Your task to perform on an android device: delete browsing data in the chrome app Image 0: 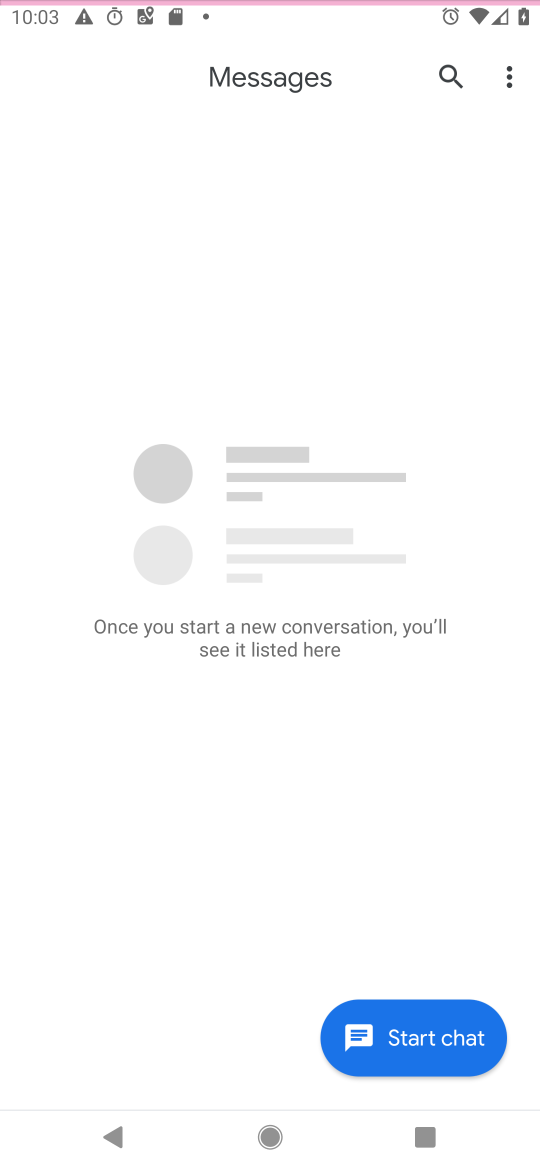
Step 0: click (315, 413)
Your task to perform on an android device: delete browsing data in the chrome app Image 1: 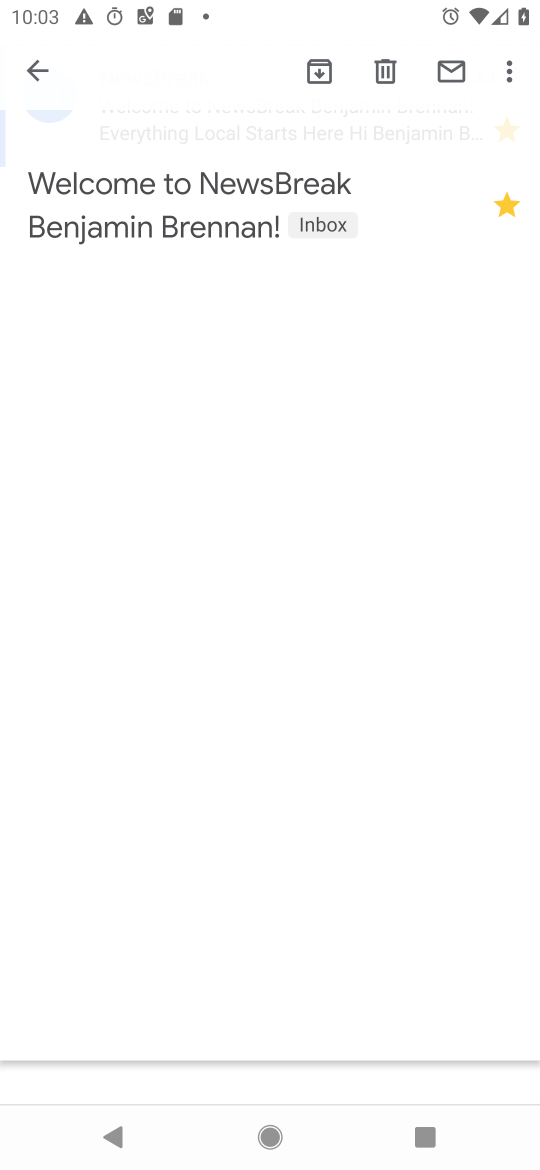
Step 1: drag from (333, 1010) to (350, 754)
Your task to perform on an android device: delete browsing data in the chrome app Image 2: 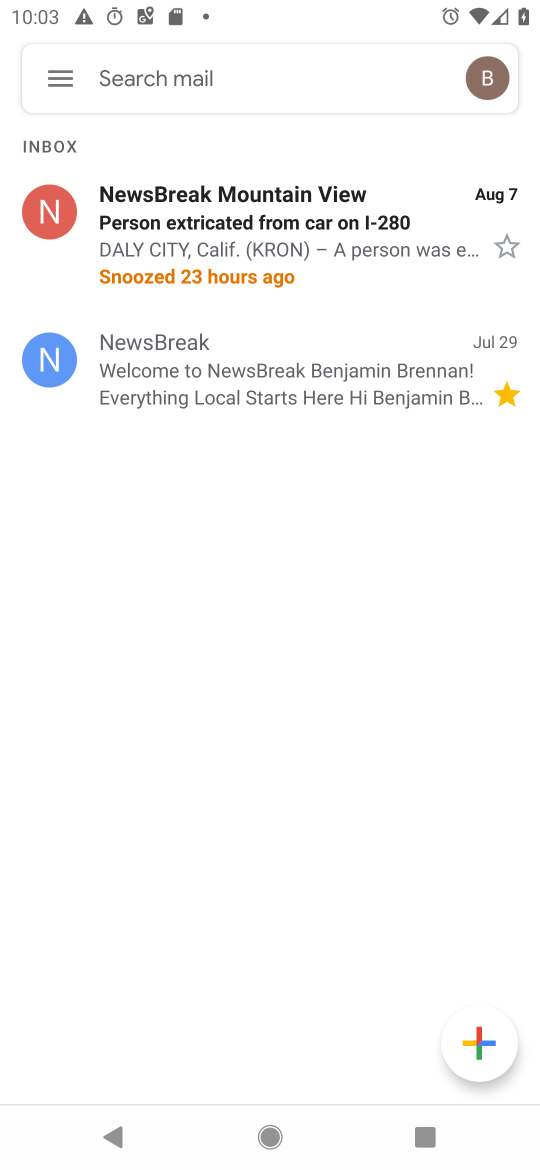
Step 2: press home button
Your task to perform on an android device: delete browsing data in the chrome app Image 3: 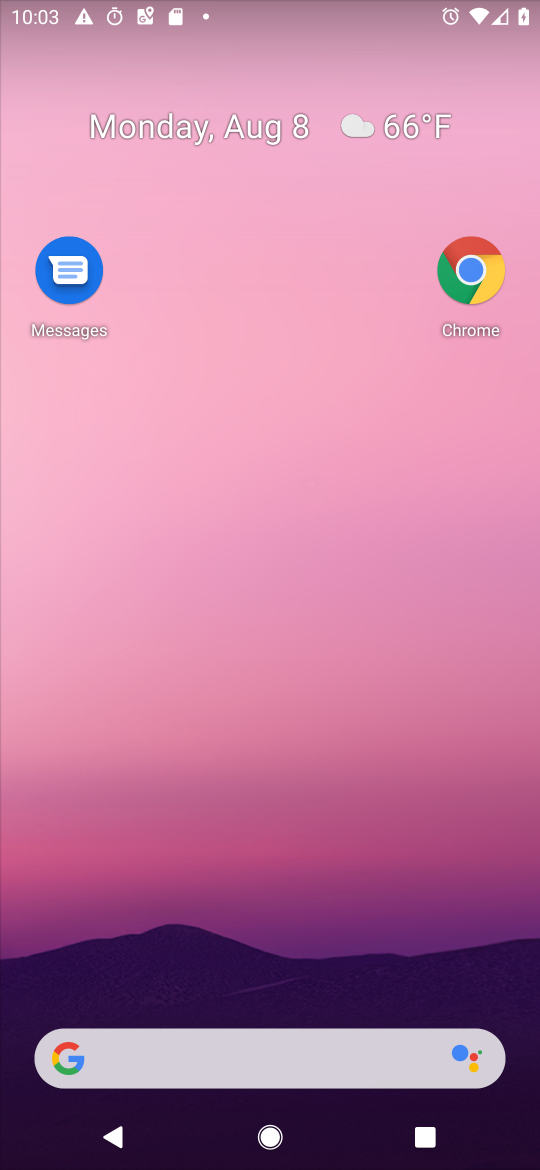
Step 3: drag from (248, 910) to (479, 63)
Your task to perform on an android device: delete browsing data in the chrome app Image 4: 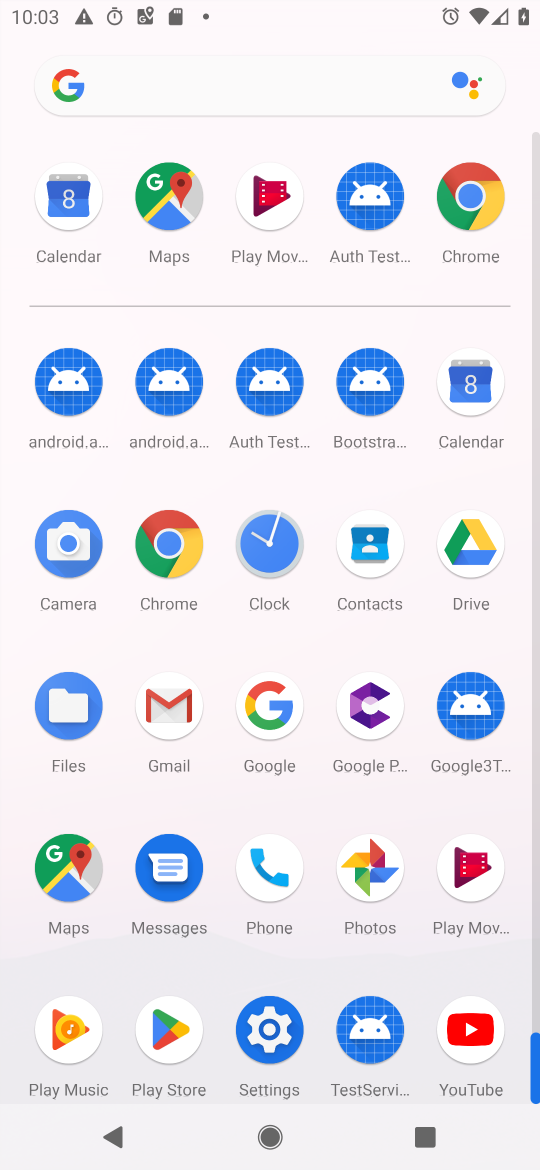
Step 4: click (171, 533)
Your task to perform on an android device: delete browsing data in the chrome app Image 5: 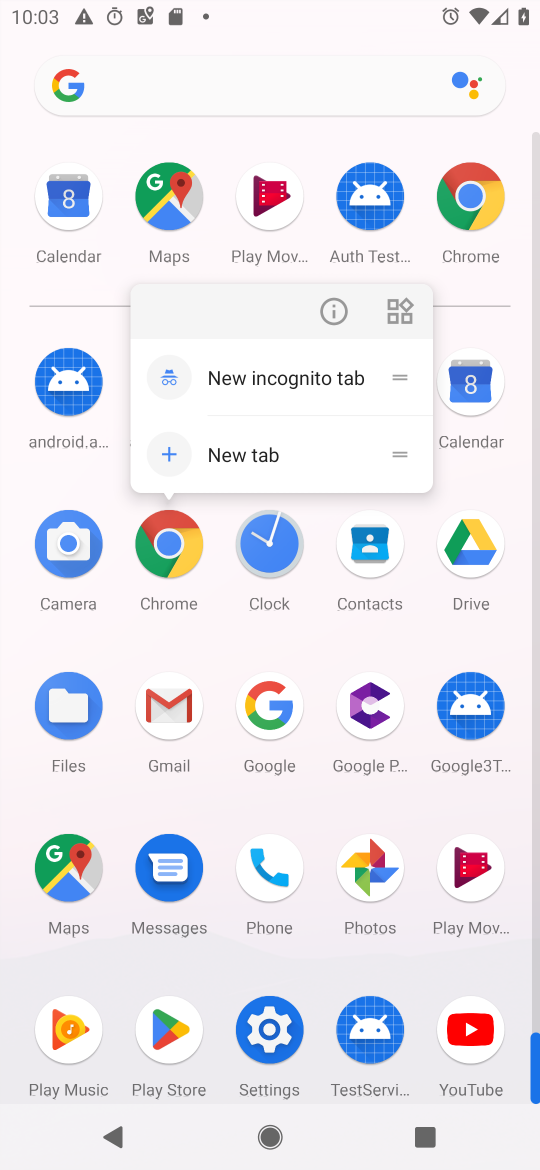
Step 5: click (335, 308)
Your task to perform on an android device: delete browsing data in the chrome app Image 6: 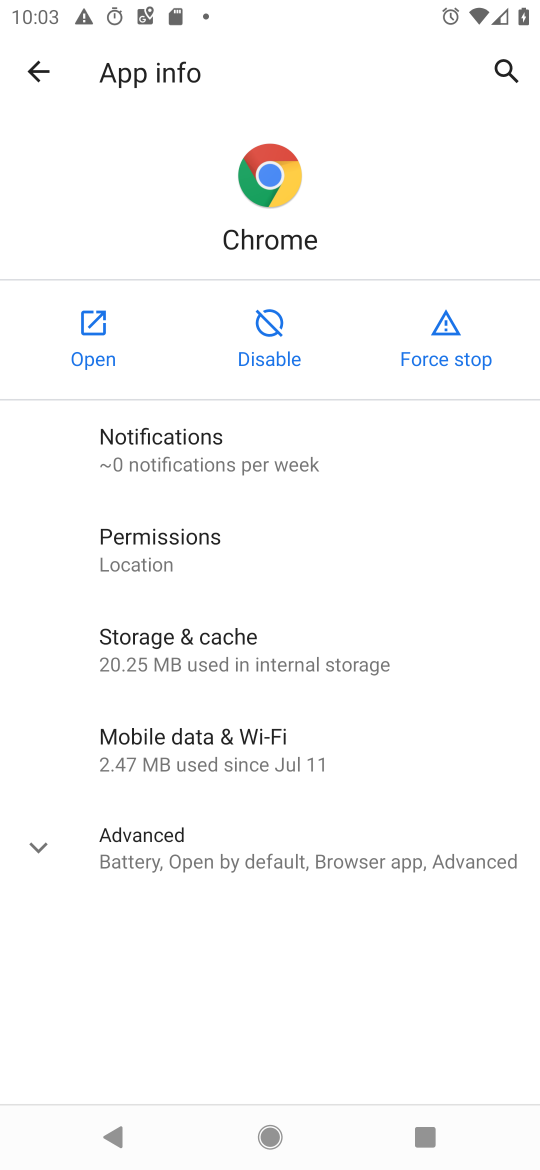
Step 6: click (101, 365)
Your task to perform on an android device: delete browsing data in the chrome app Image 7: 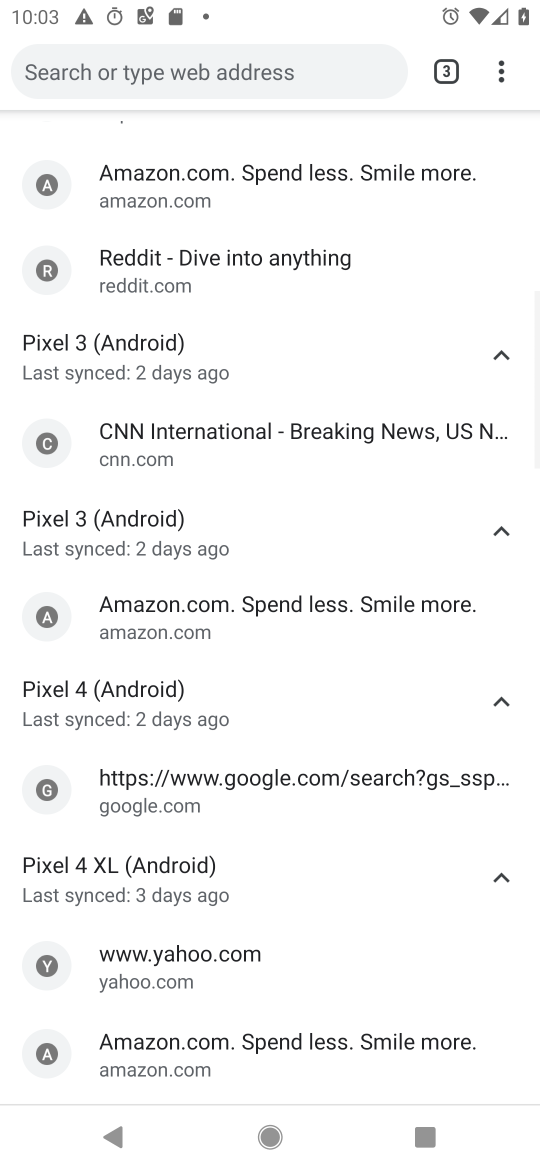
Step 7: drag from (500, 62) to (234, 412)
Your task to perform on an android device: delete browsing data in the chrome app Image 8: 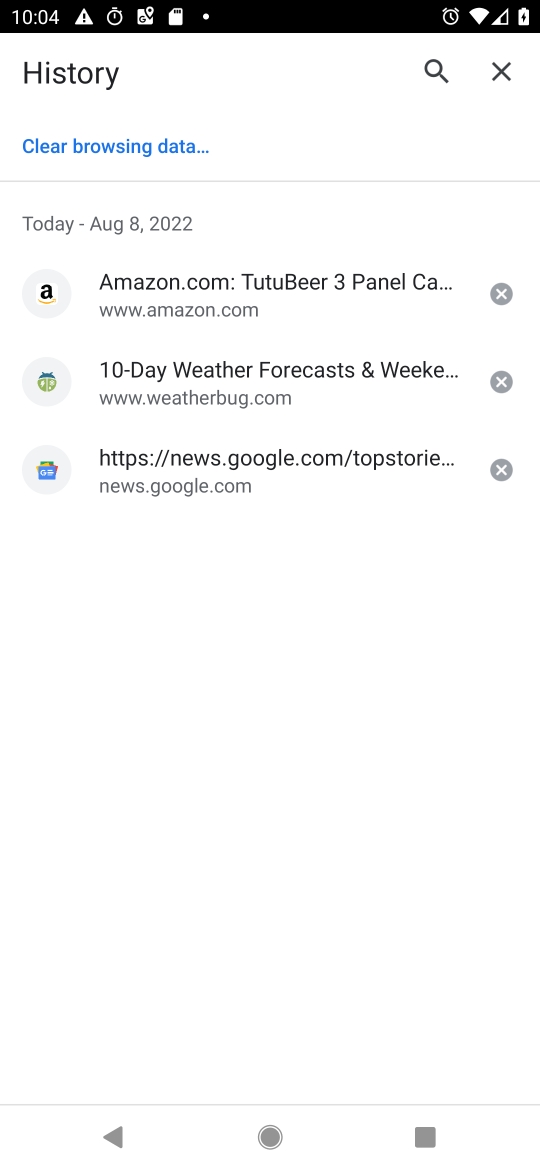
Step 8: click (73, 154)
Your task to perform on an android device: delete browsing data in the chrome app Image 9: 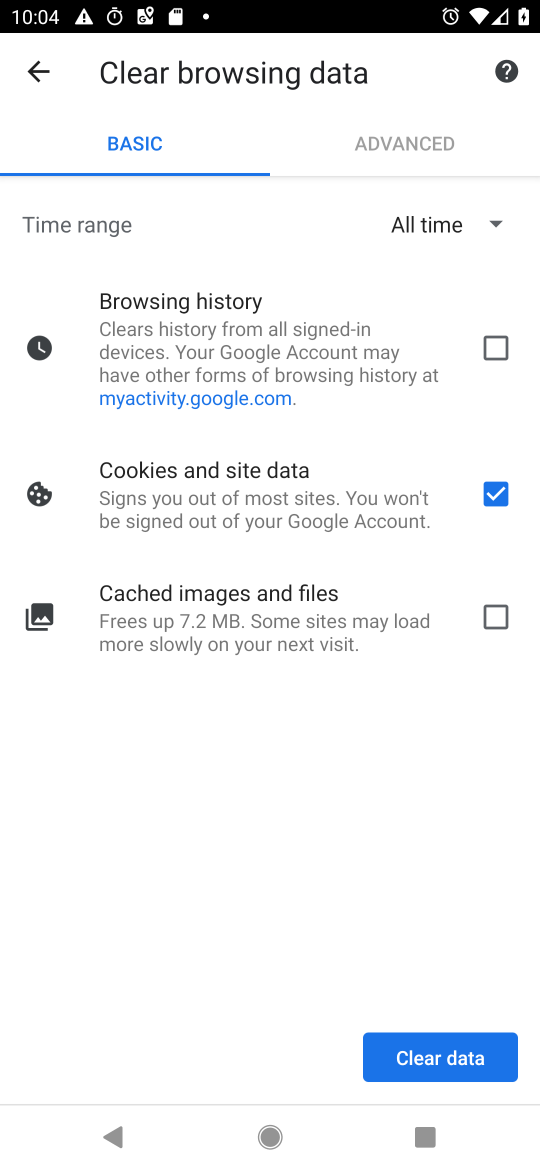
Step 9: click (442, 1053)
Your task to perform on an android device: delete browsing data in the chrome app Image 10: 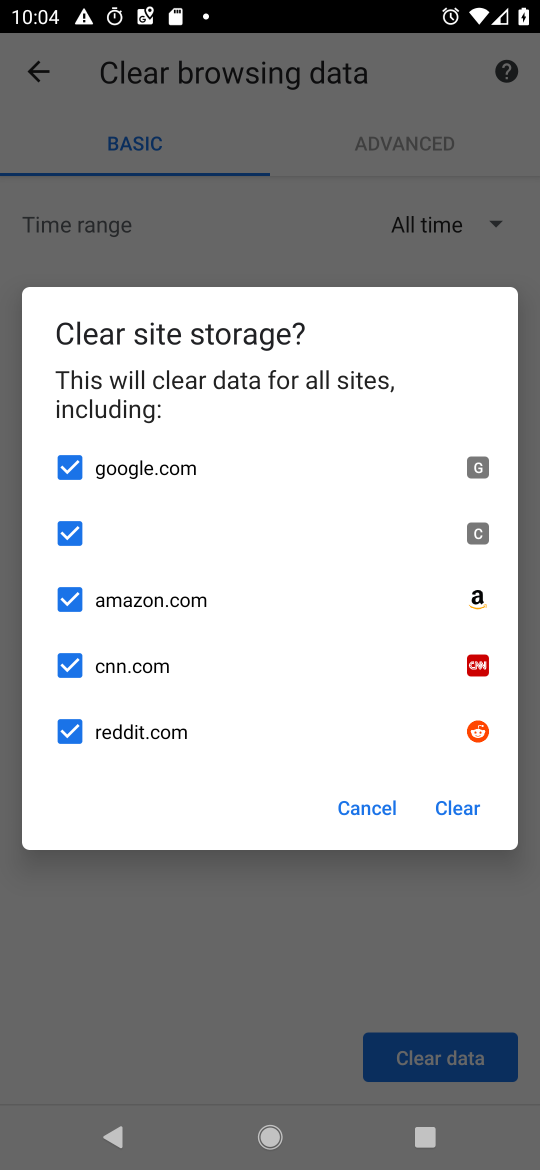
Step 10: click (426, 809)
Your task to perform on an android device: delete browsing data in the chrome app Image 11: 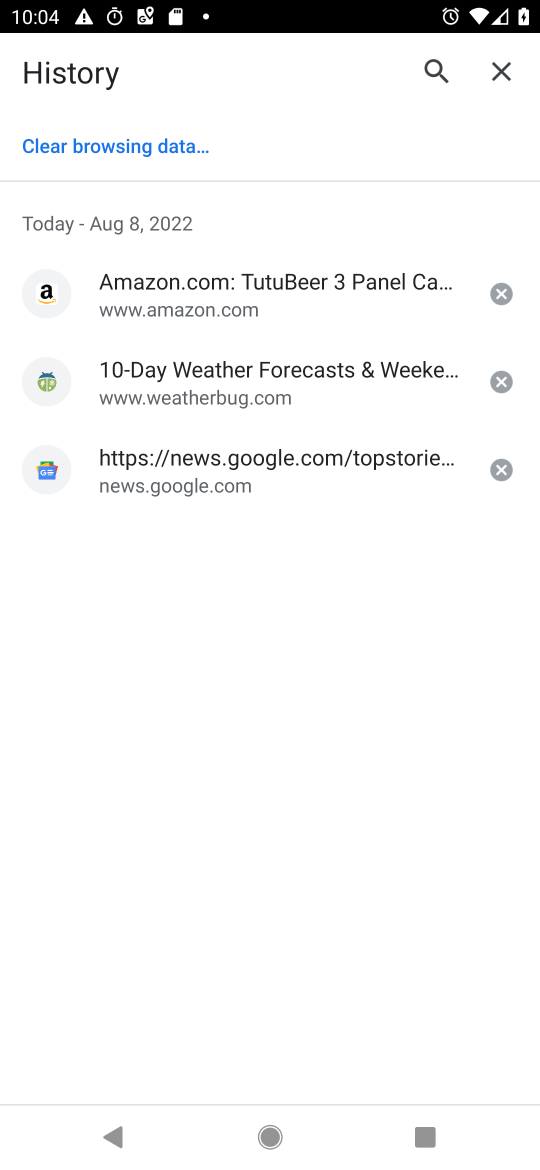
Step 11: task complete